Your task to perform on an android device: visit the assistant section in the google photos Image 0: 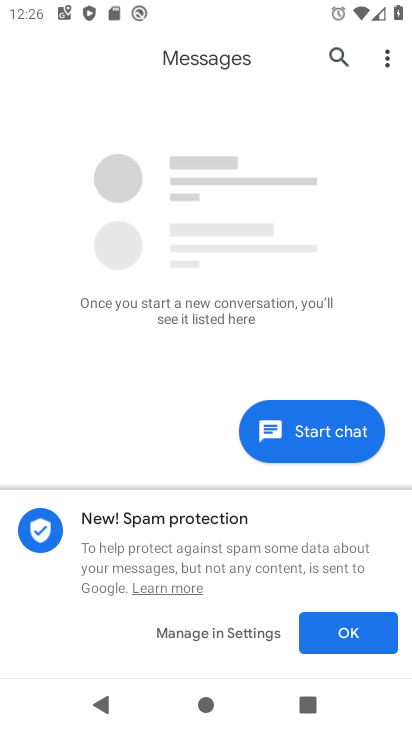
Step 0: press home button
Your task to perform on an android device: visit the assistant section in the google photos Image 1: 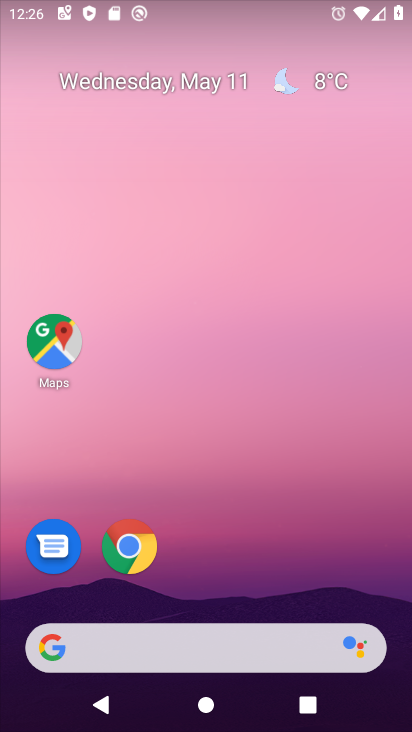
Step 1: drag from (186, 605) to (283, 239)
Your task to perform on an android device: visit the assistant section in the google photos Image 2: 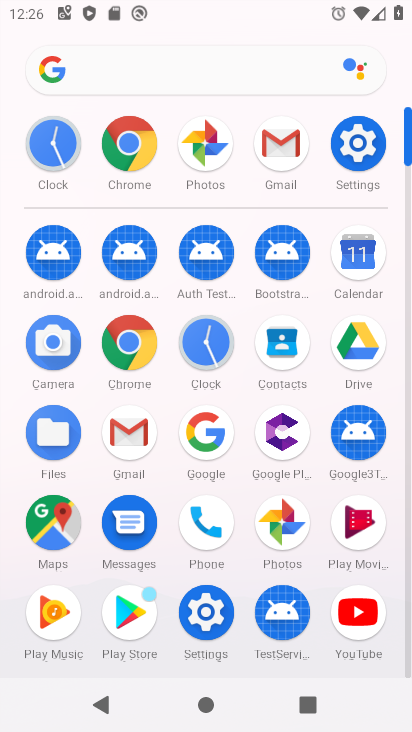
Step 2: click (275, 539)
Your task to perform on an android device: visit the assistant section in the google photos Image 3: 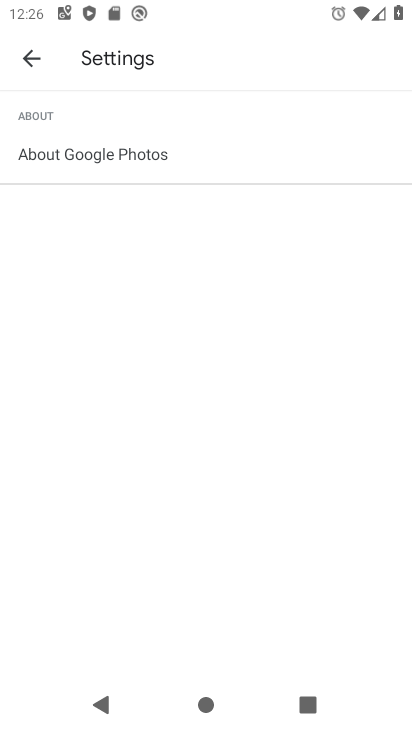
Step 3: click (27, 54)
Your task to perform on an android device: visit the assistant section in the google photos Image 4: 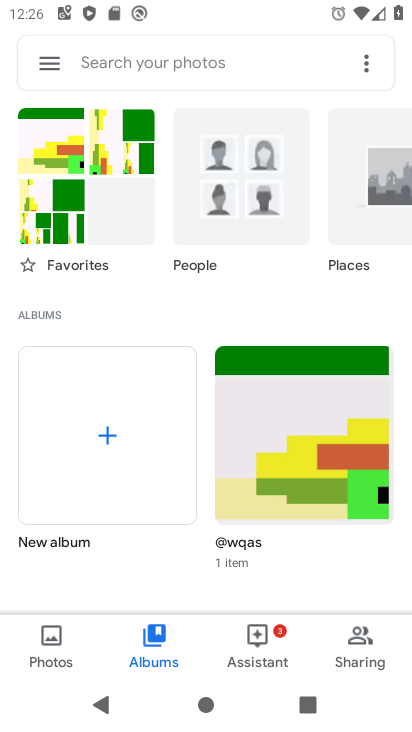
Step 4: click (254, 658)
Your task to perform on an android device: visit the assistant section in the google photos Image 5: 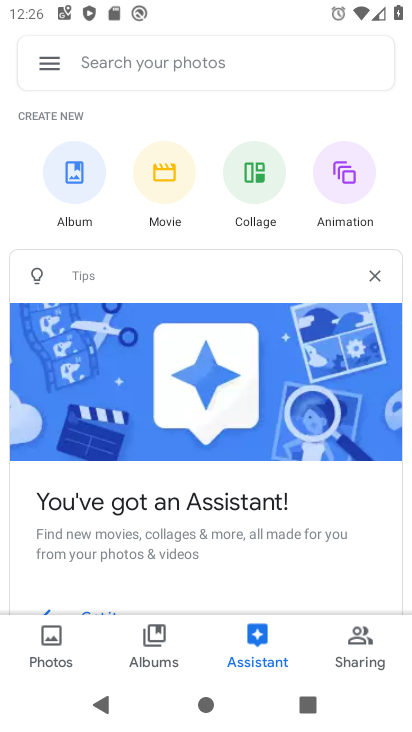
Step 5: task complete